Your task to perform on an android device: turn off airplane mode Image 0: 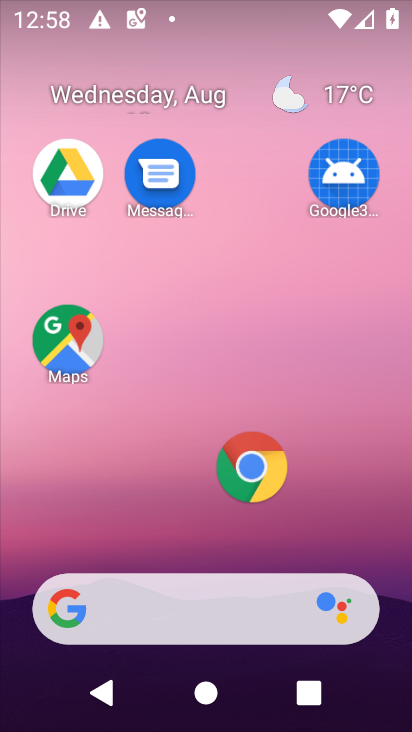
Step 0: drag from (269, 5) to (285, 456)
Your task to perform on an android device: turn off airplane mode Image 1: 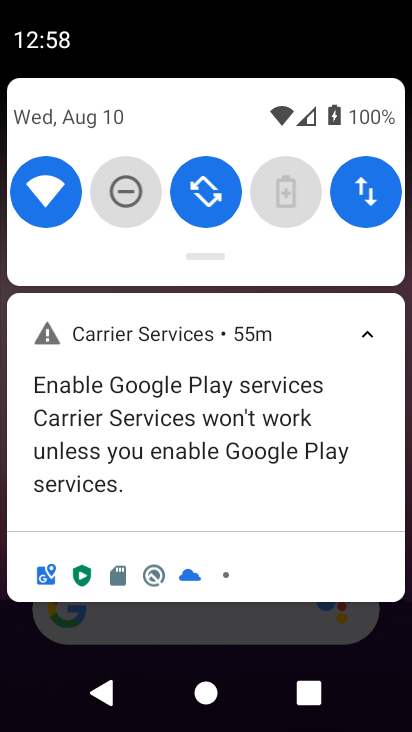
Step 1: task complete